Your task to perform on an android device: Open Google Chrome Image 0: 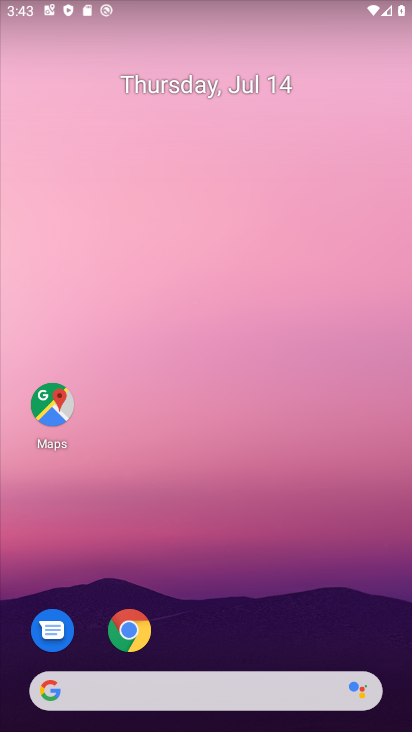
Step 0: click (136, 625)
Your task to perform on an android device: Open Google Chrome Image 1: 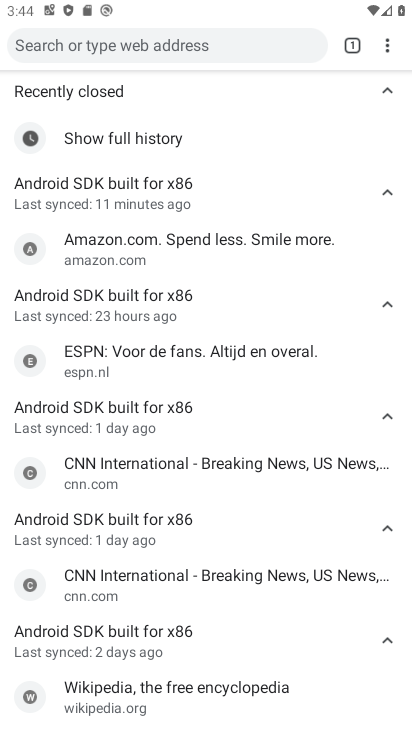
Step 1: task complete